Your task to perform on an android device: turn on notifications settings in the gmail app Image 0: 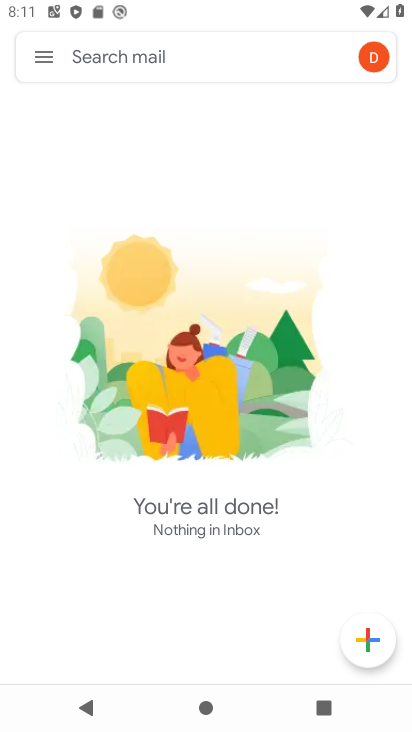
Step 0: click (43, 69)
Your task to perform on an android device: turn on notifications settings in the gmail app Image 1: 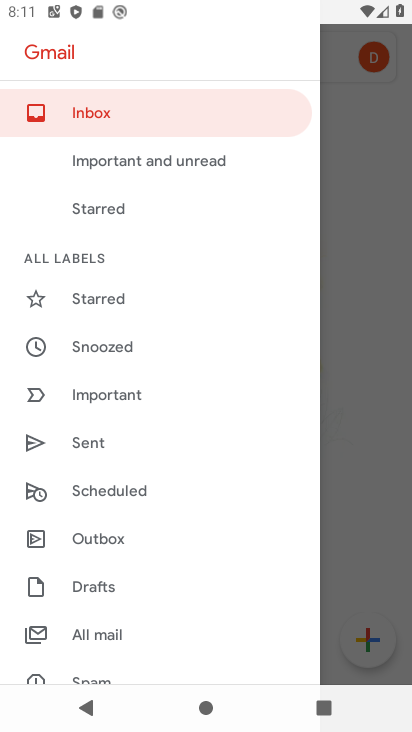
Step 1: drag from (105, 598) to (99, 240)
Your task to perform on an android device: turn on notifications settings in the gmail app Image 2: 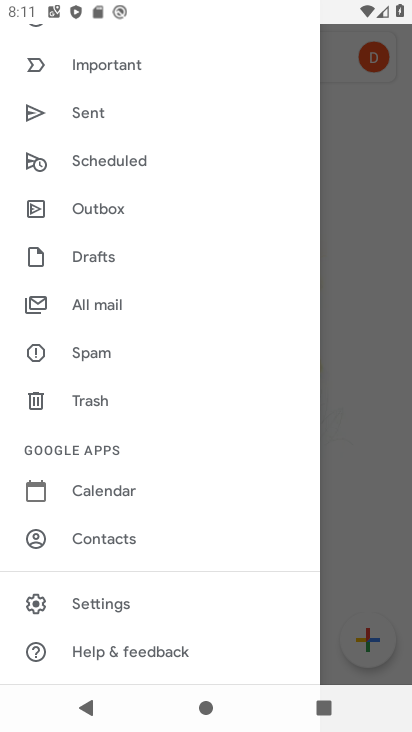
Step 2: click (64, 631)
Your task to perform on an android device: turn on notifications settings in the gmail app Image 3: 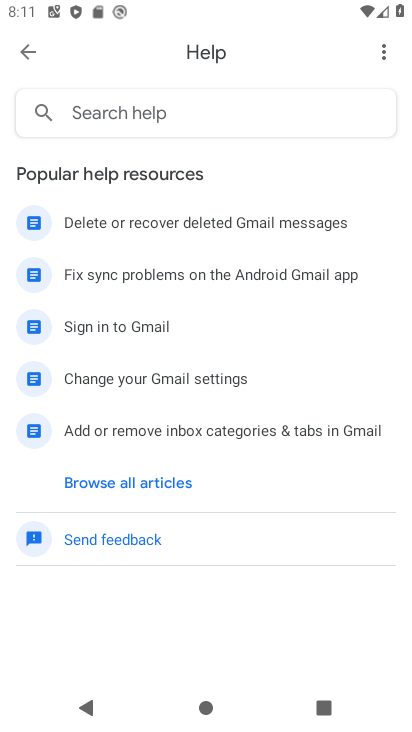
Step 3: click (31, 51)
Your task to perform on an android device: turn on notifications settings in the gmail app Image 4: 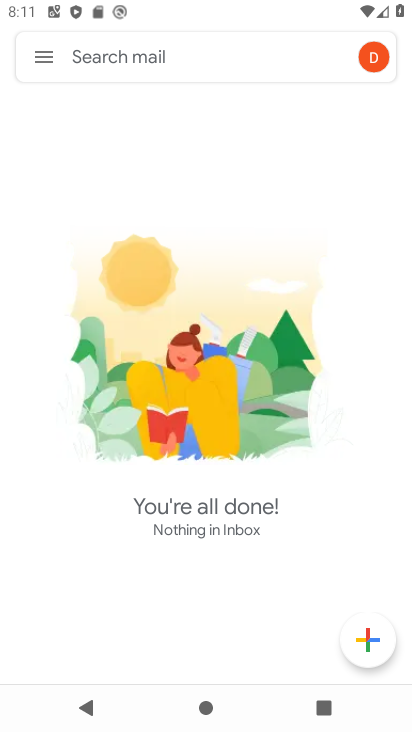
Step 4: click (31, 51)
Your task to perform on an android device: turn on notifications settings in the gmail app Image 5: 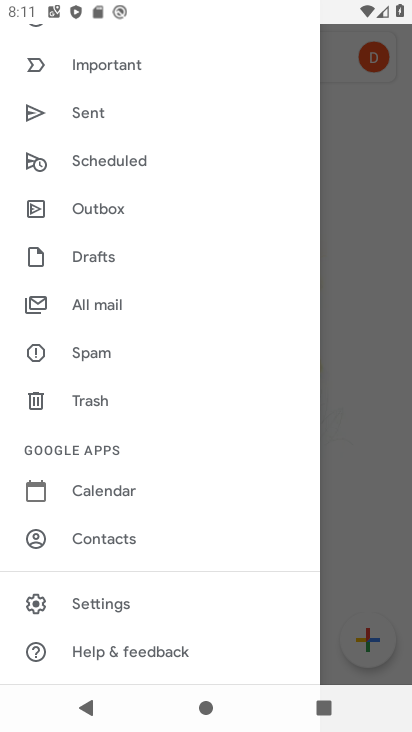
Step 5: click (101, 608)
Your task to perform on an android device: turn on notifications settings in the gmail app Image 6: 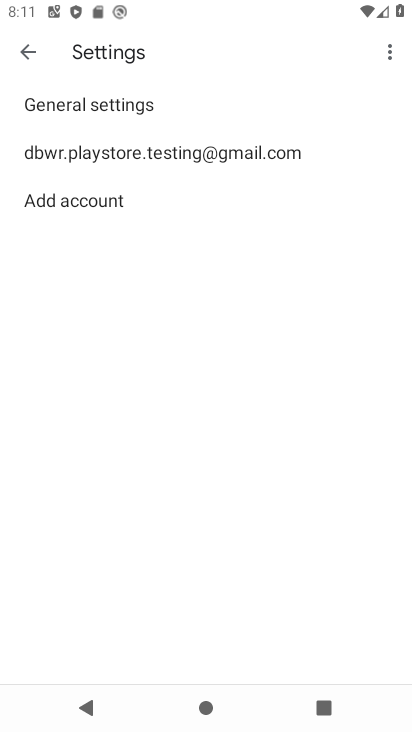
Step 6: click (216, 157)
Your task to perform on an android device: turn on notifications settings in the gmail app Image 7: 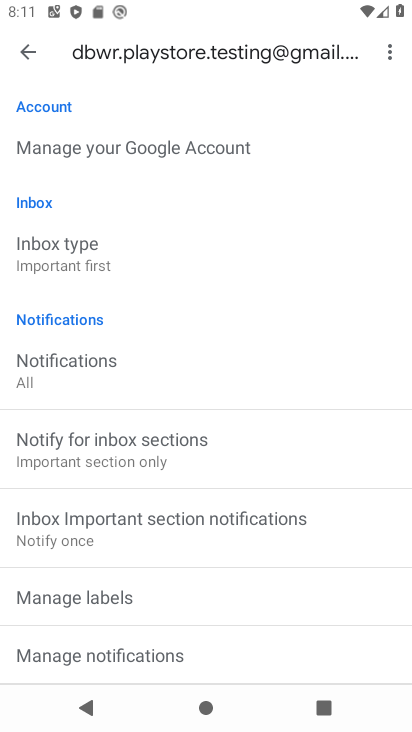
Step 7: click (69, 387)
Your task to perform on an android device: turn on notifications settings in the gmail app Image 8: 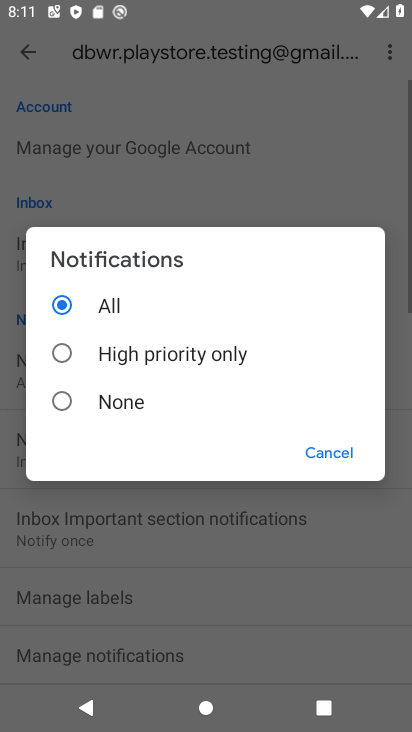
Step 8: task complete